Your task to perform on an android device: Search for seafood restaurants on Google Maps Image 0: 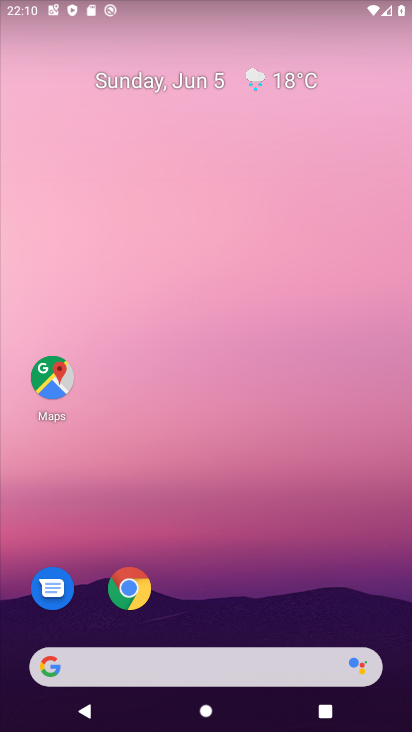
Step 0: drag from (318, 526) to (300, 31)
Your task to perform on an android device: Search for seafood restaurants on Google Maps Image 1: 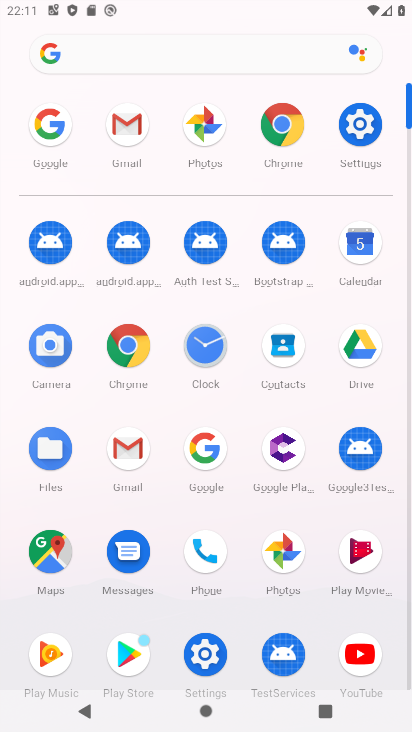
Step 1: click (56, 563)
Your task to perform on an android device: Search for seafood restaurants on Google Maps Image 2: 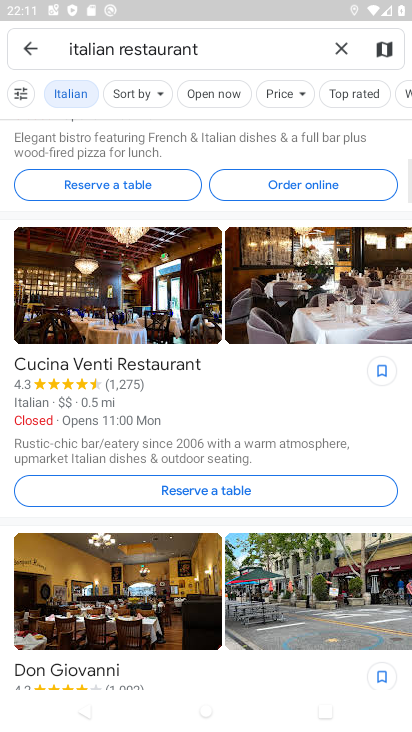
Step 2: click (341, 55)
Your task to perform on an android device: Search for seafood restaurants on Google Maps Image 3: 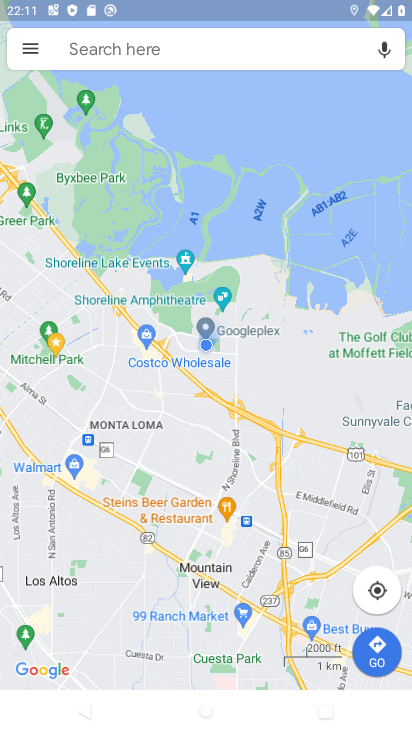
Step 3: click (258, 48)
Your task to perform on an android device: Search for seafood restaurants on Google Maps Image 4: 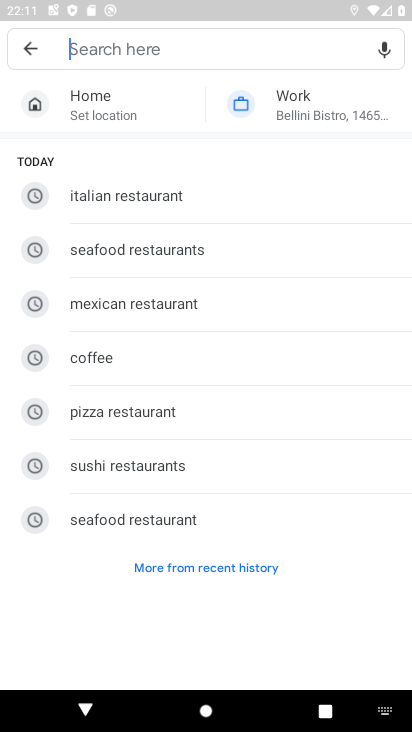
Step 4: type "seafood restaurants"
Your task to perform on an android device: Search for seafood restaurants on Google Maps Image 5: 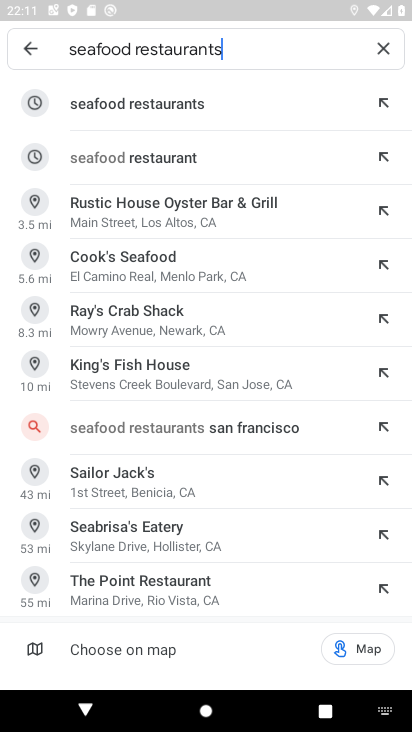
Step 5: click (225, 105)
Your task to perform on an android device: Search for seafood restaurants on Google Maps Image 6: 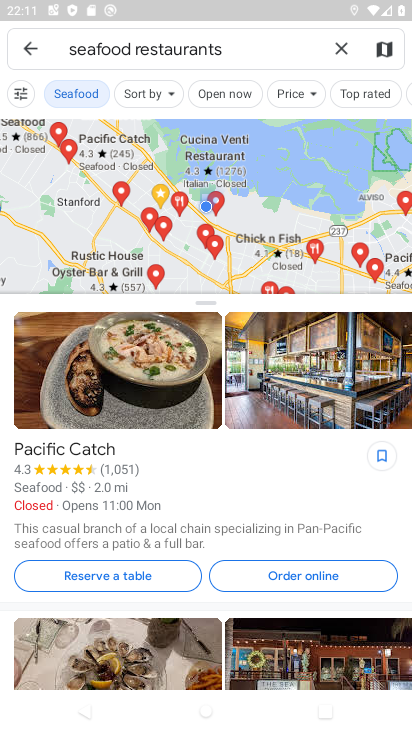
Step 6: task complete